Your task to perform on an android device: open sync settings in chrome Image 0: 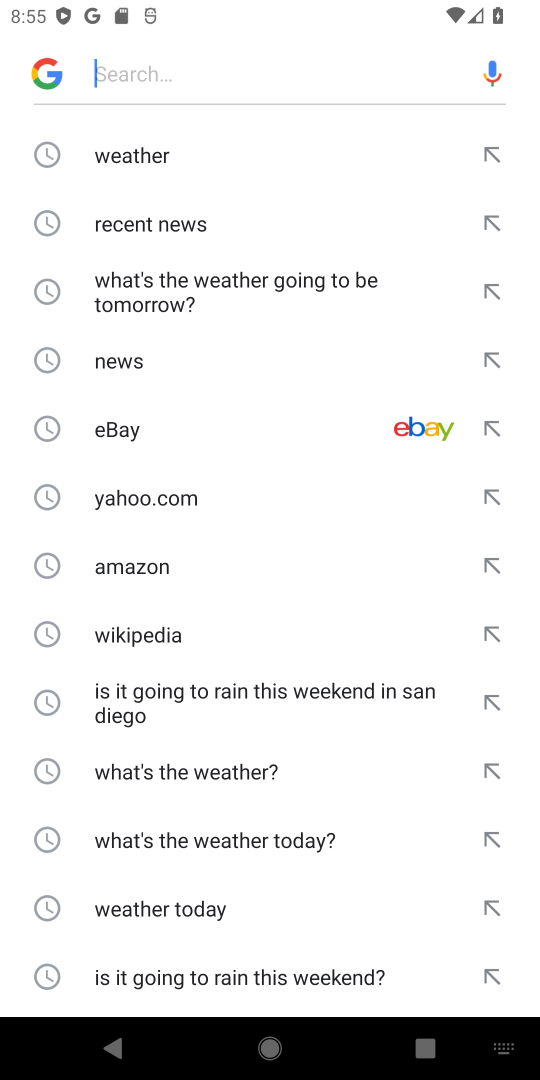
Step 0: press home button
Your task to perform on an android device: open sync settings in chrome Image 1: 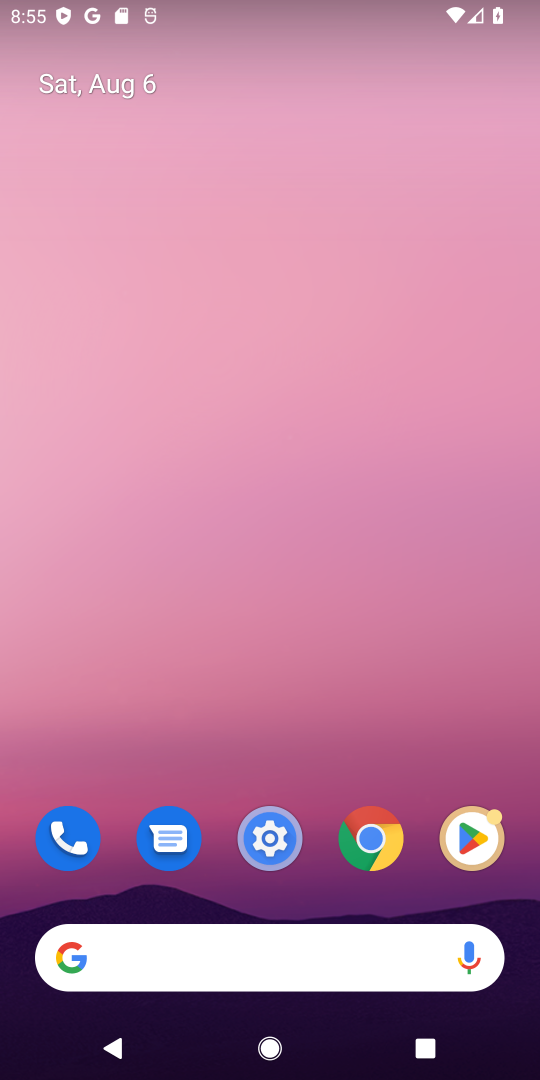
Step 1: click (360, 841)
Your task to perform on an android device: open sync settings in chrome Image 2: 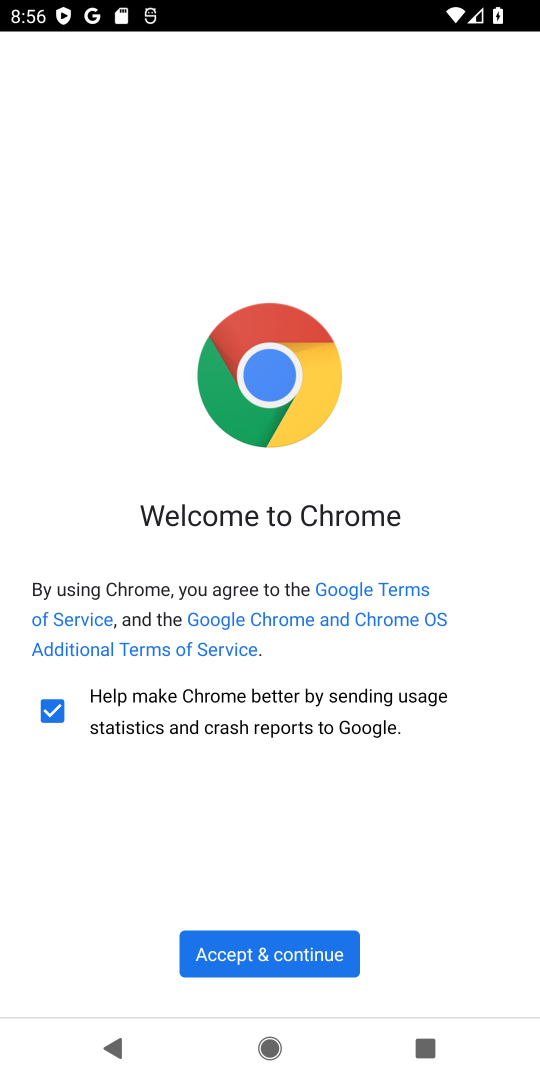
Step 2: click (337, 941)
Your task to perform on an android device: open sync settings in chrome Image 3: 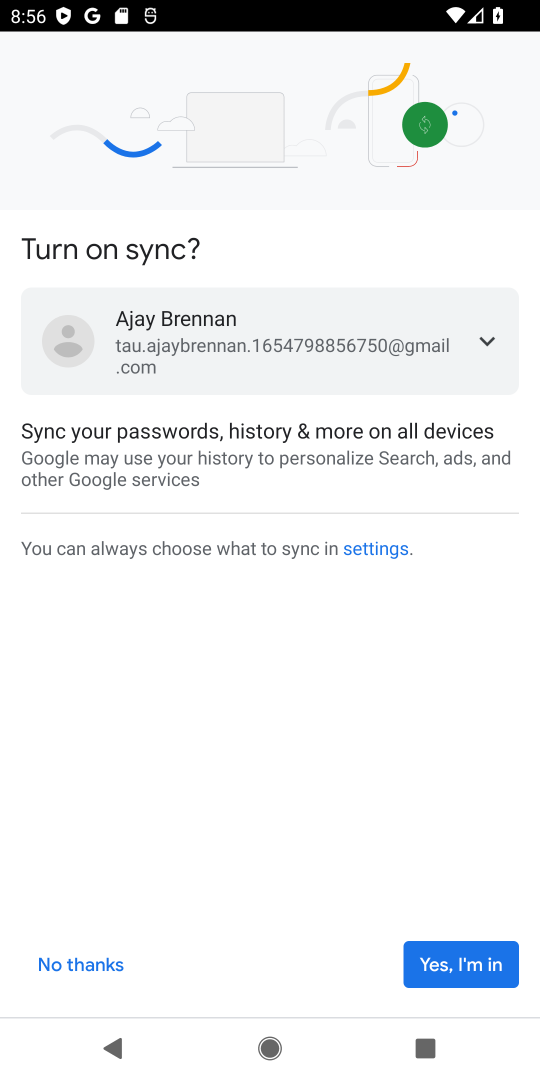
Step 3: click (466, 948)
Your task to perform on an android device: open sync settings in chrome Image 4: 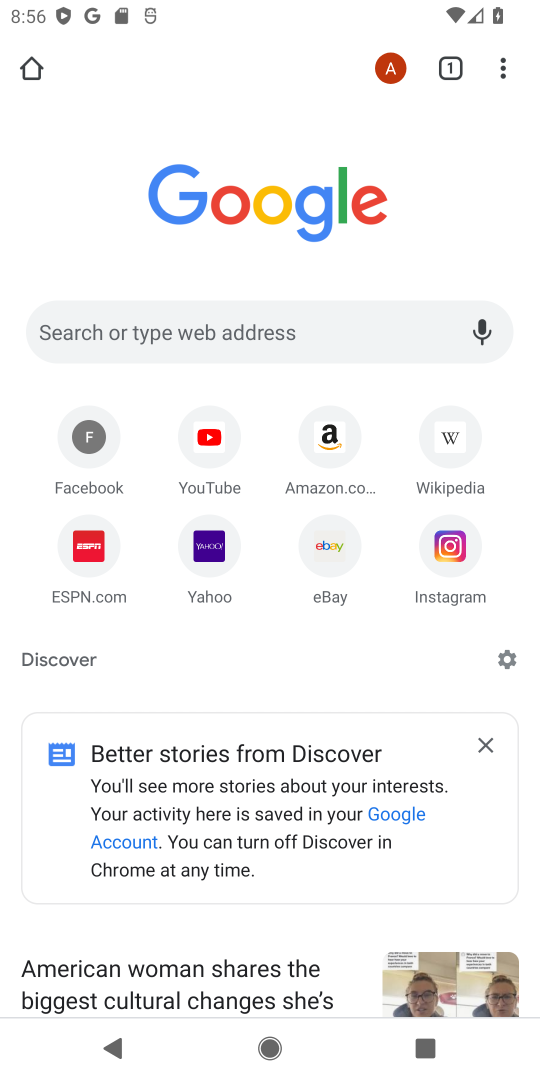
Step 4: click (499, 55)
Your task to perform on an android device: open sync settings in chrome Image 5: 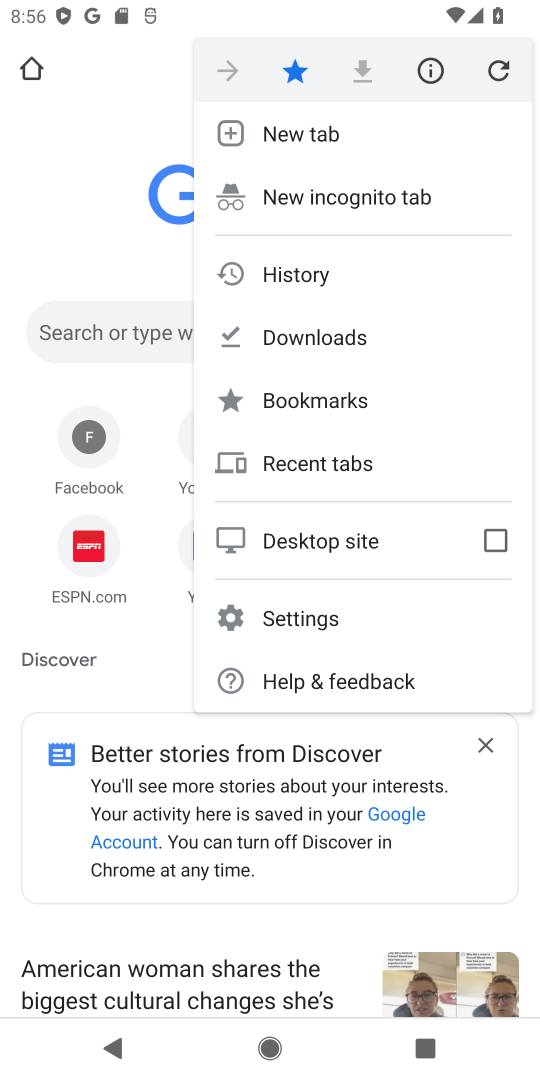
Step 5: click (363, 605)
Your task to perform on an android device: open sync settings in chrome Image 6: 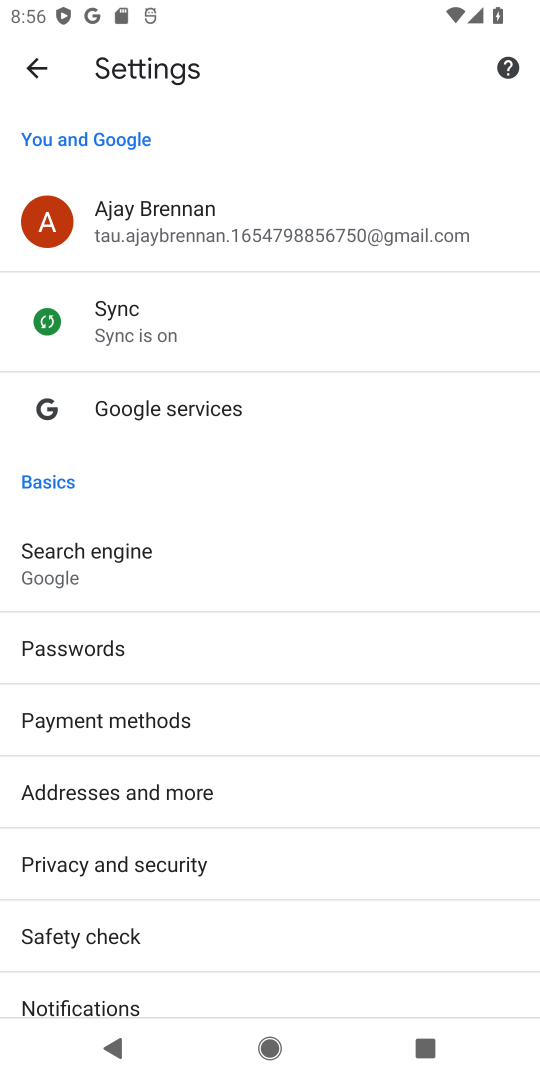
Step 6: drag from (266, 927) to (167, 620)
Your task to perform on an android device: open sync settings in chrome Image 7: 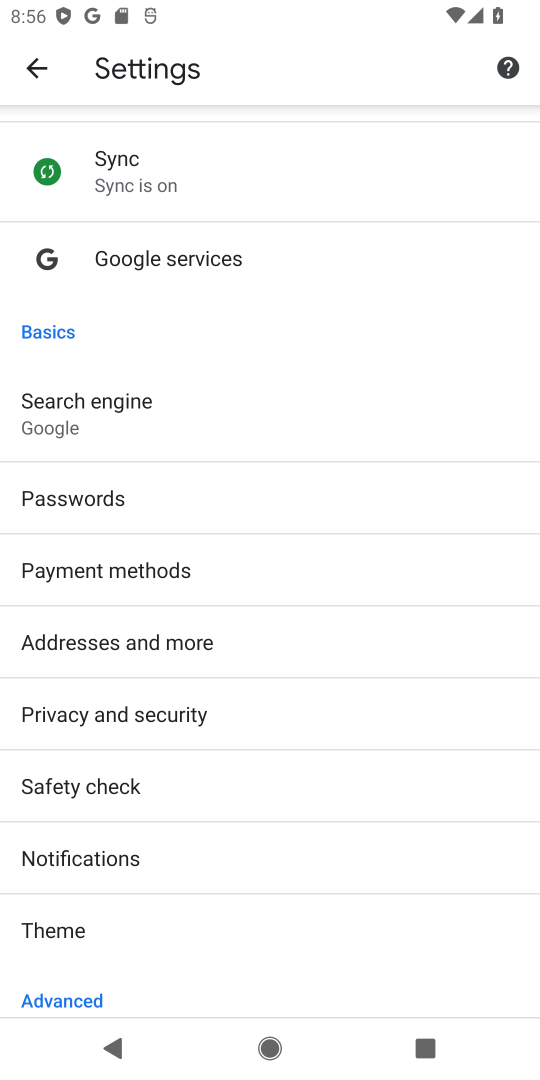
Step 7: drag from (169, 207) to (248, 631)
Your task to perform on an android device: open sync settings in chrome Image 8: 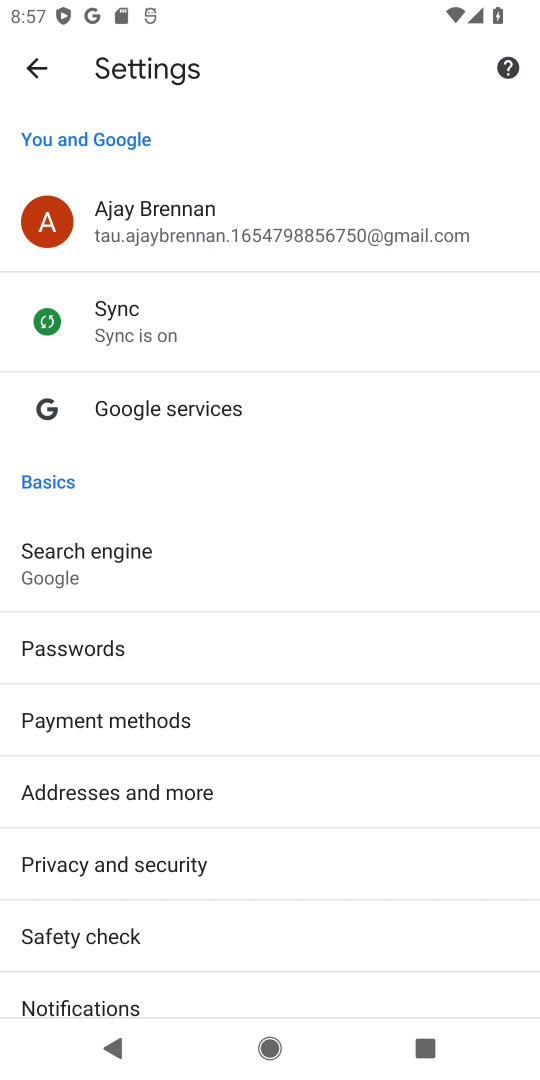
Step 8: click (153, 312)
Your task to perform on an android device: open sync settings in chrome Image 9: 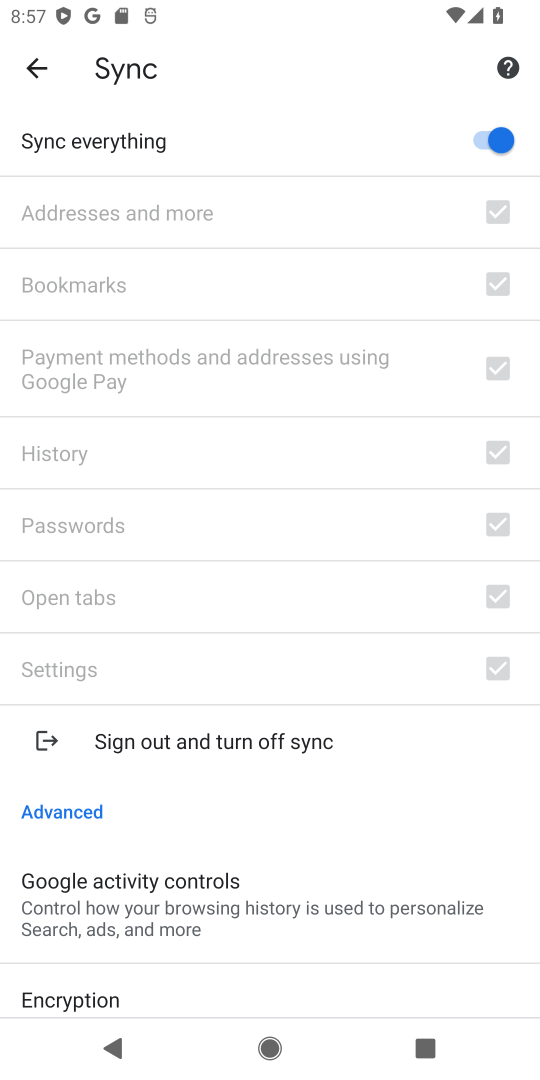
Step 9: task complete